Your task to perform on an android device: Show me the alarms in the clock app Image 0: 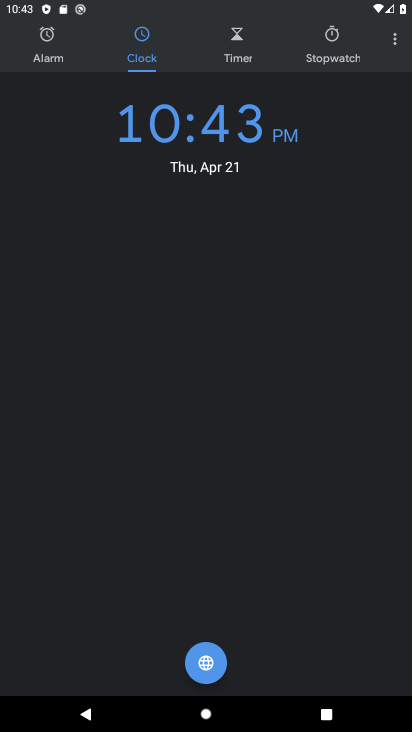
Step 0: press home button
Your task to perform on an android device: Show me the alarms in the clock app Image 1: 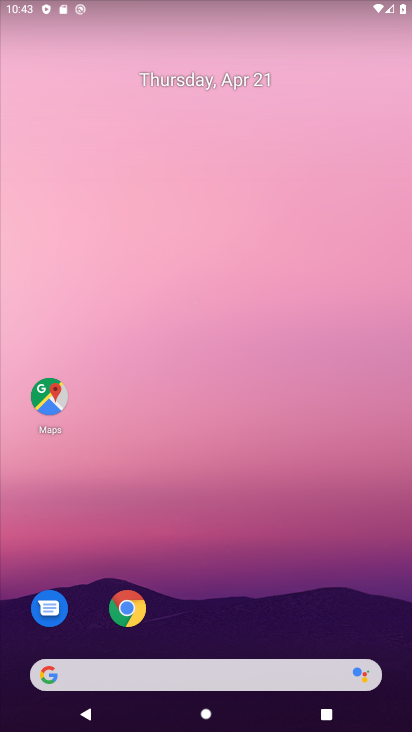
Step 1: drag from (233, 602) to (244, 170)
Your task to perform on an android device: Show me the alarms in the clock app Image 2: 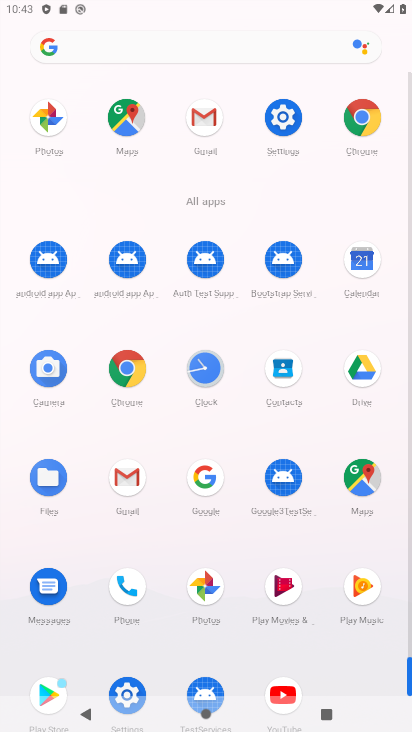
Step 2: click (210, 369)
Your task to perform on an android device: Show me the alarms in the clock app Image 3: 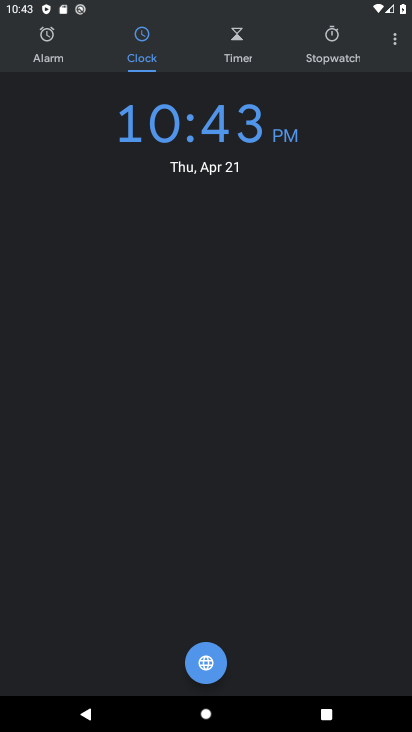
Step 3: click (47, 38)
Your task to perform on an android device: Show me the alarms in the clock app Image 4: 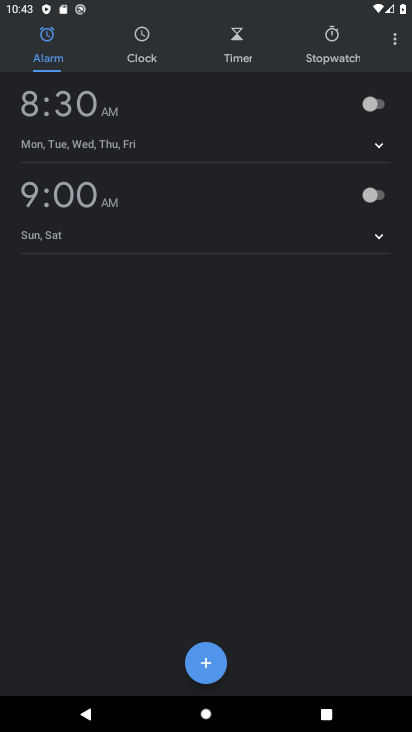
Step 4: task complete